Your task to perform on an android device: Add "razer naga" to the cart on newegg, then select checkout. Image 0: 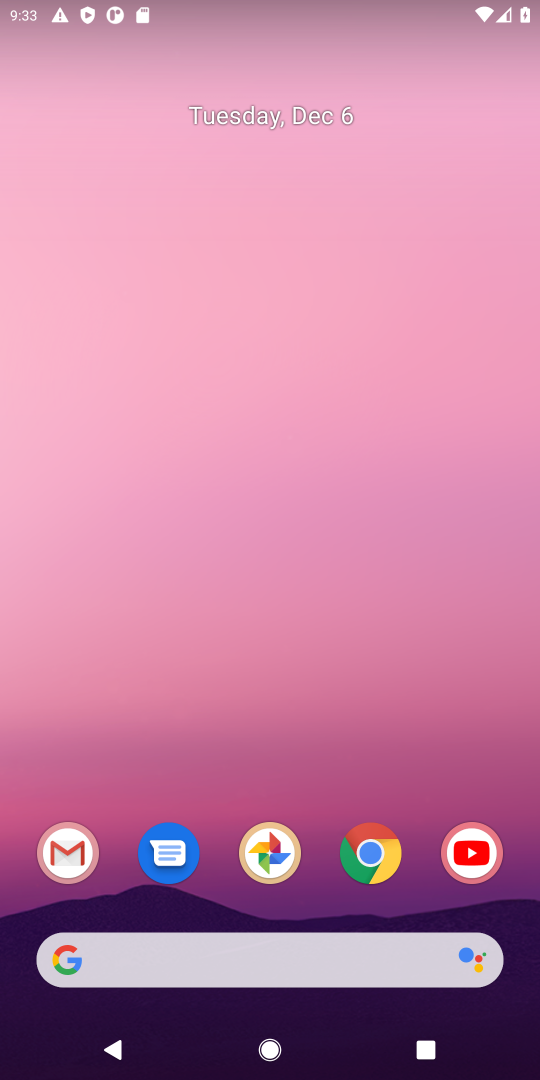
Step 0: click (382, 842)
Your task to perform on an android device: Add "razer naga" to the cart on newegg, then select checkout. Image 1: 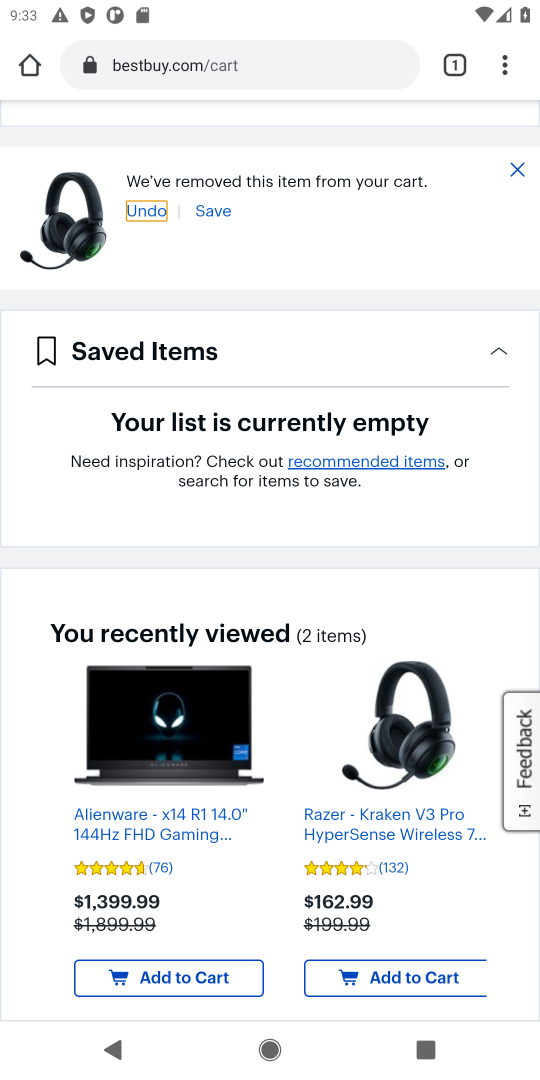
Step 1: click (306, 64)
Your task to perform on an android device: Add "razer naga" to the cart on newegg, then select checkout. Image 2: 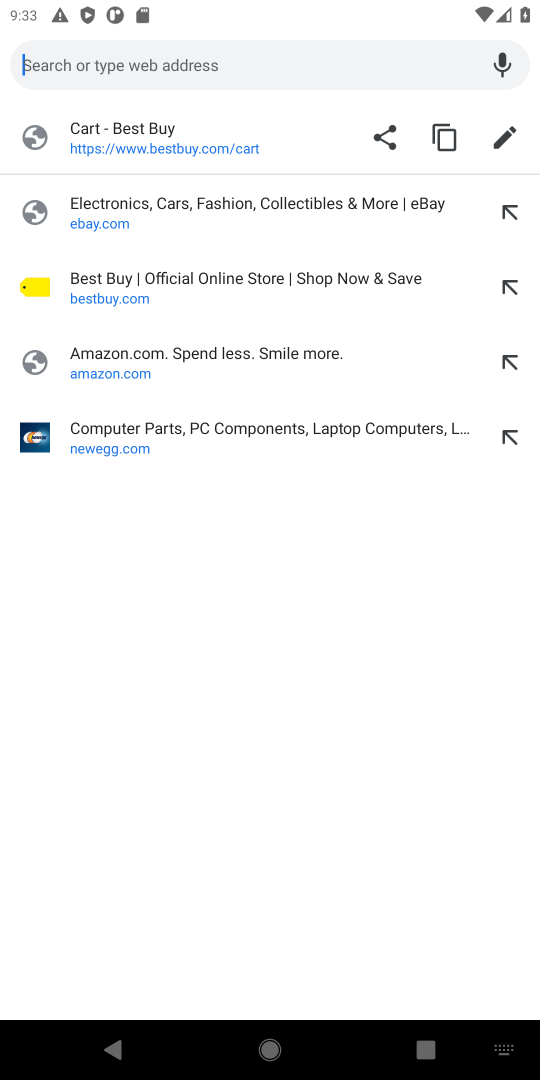
Step 2: click (271, 430)
Your task to perform on an android device: Add "razer naga" to the cart on newegg, then select checkout. Image 3: 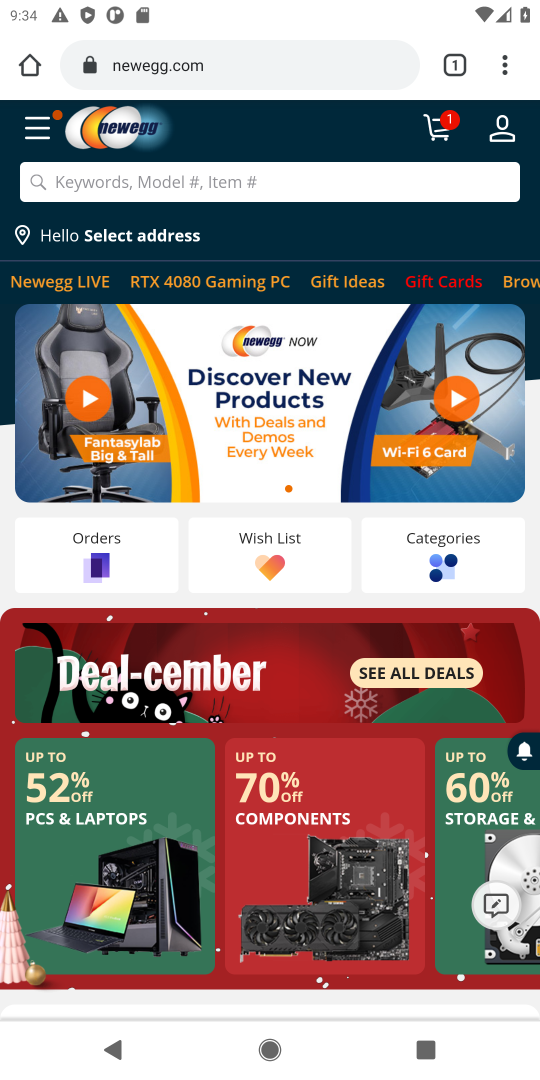
Step 3: click (327, 187)
Your task to perform on an android device: Add "razer naga" to the cart on newegg, then select checkout. Image 4: 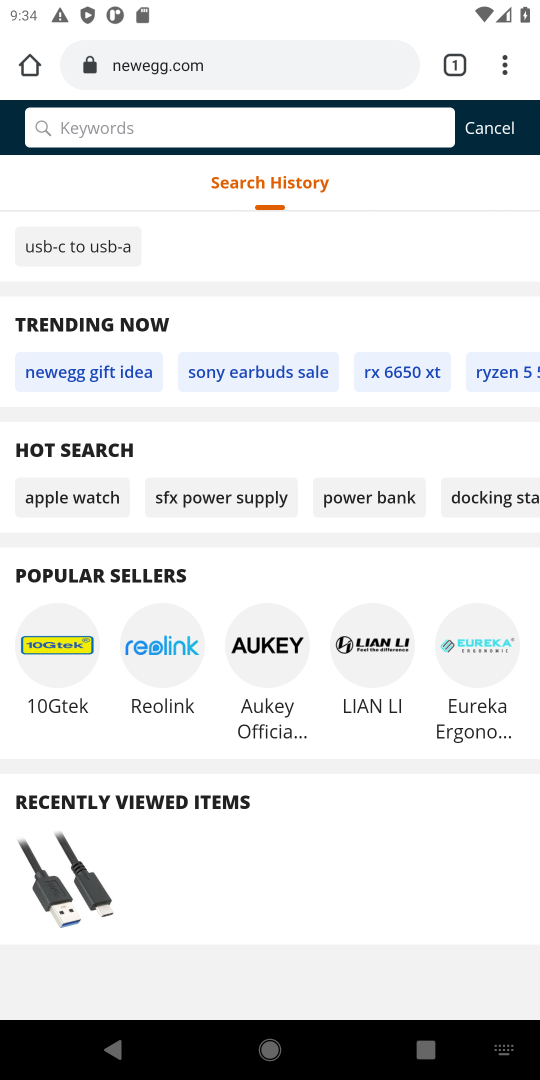
Step 4: type "razer naga"
Your task to perform on an android device: Add "razer naga" to the cart on newegg, then select checkout. Image 5: 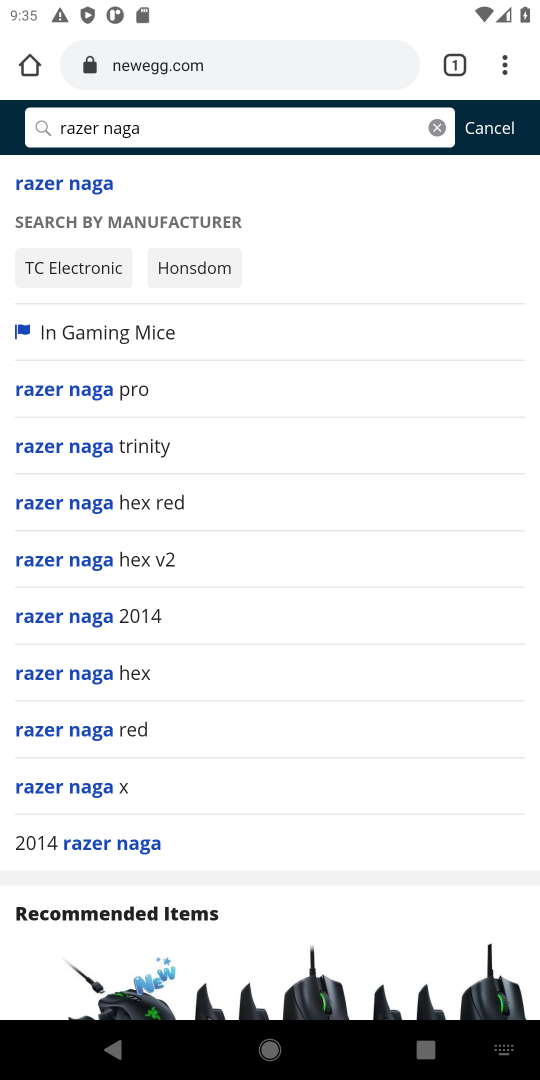
Step 5: click (97, 188)
Your task to perform on an android device: Add "razer naga" to the cart on newegg, then select checkout. Image 6: 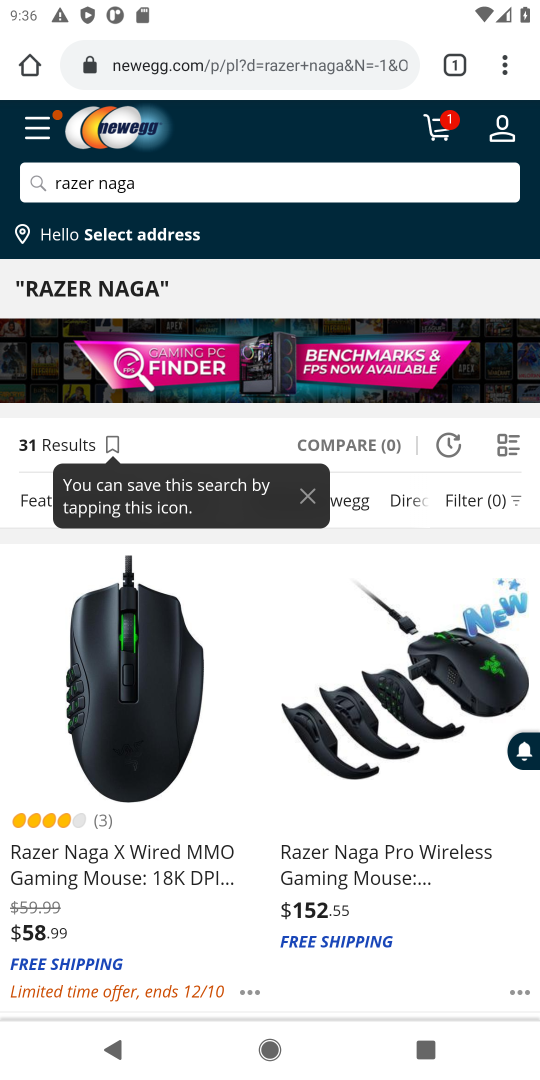
Step 6: click (122, 705)
Your task to perform on an android device: Add "razer naga" to the cart on newegg, then select checkout. Image 7: 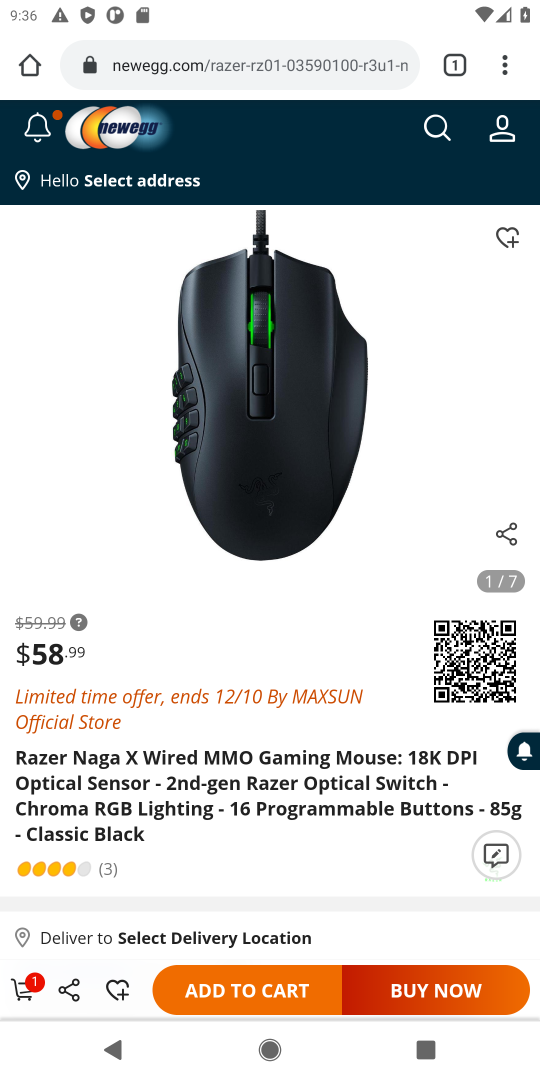
Step 7: click (237, 986)
Your task to perform on an android device: Add "razer naga" to the cart on newegg, then select checkout. Image 8: 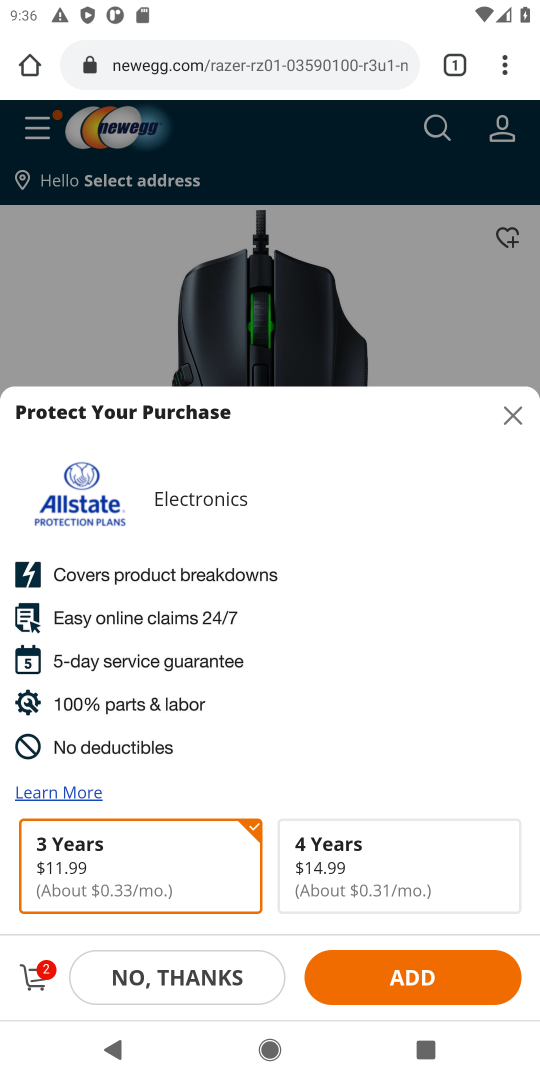
Step 8: task complete